Your task to perform on an android device: Go to wifi settings Image 0: 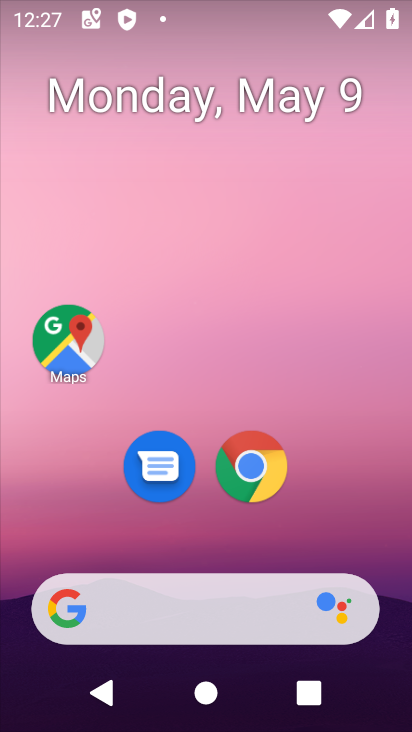
Step 0: drag from (330, 543) to (342, 148)
Your task to perform on an android device: Go to wifi settings Image 1: 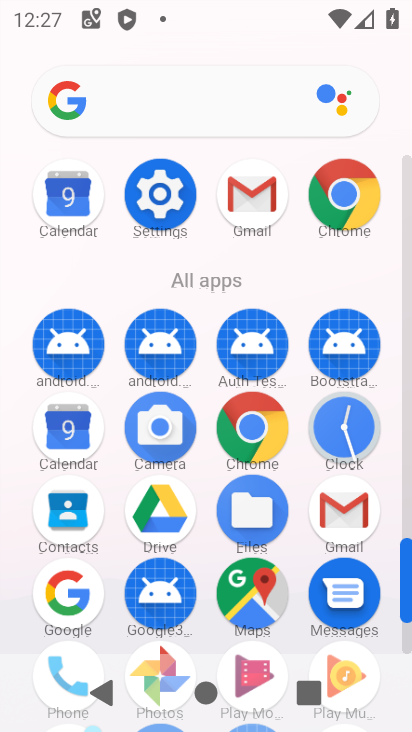
Step 1: click (152, 207)
Your task to perform on an android device: Go to wifi settings Image 2: 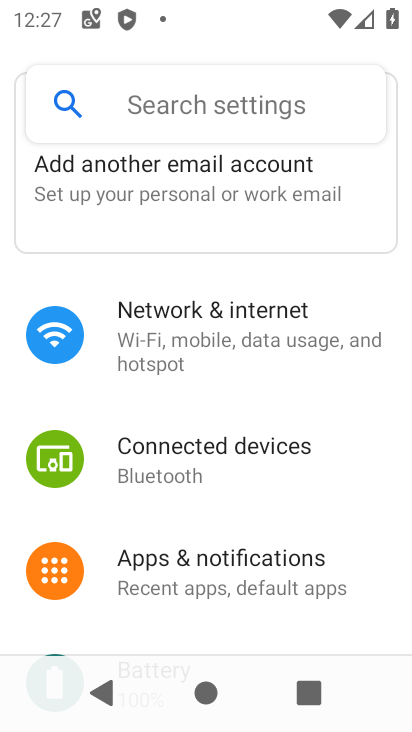
Step 2: click (219, 318)
Your task to perform on an android device: Go to wifi settings Image 3: 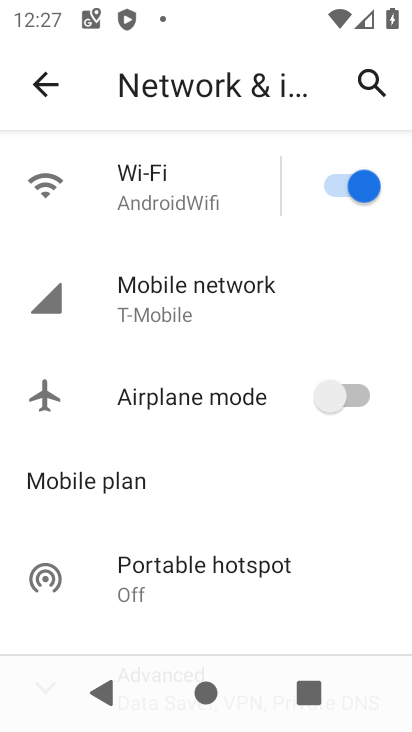
Step 3: drag from (305, 593) to (274, 138)
Your task to perform on an android device: Go to wifi settings Image 4: 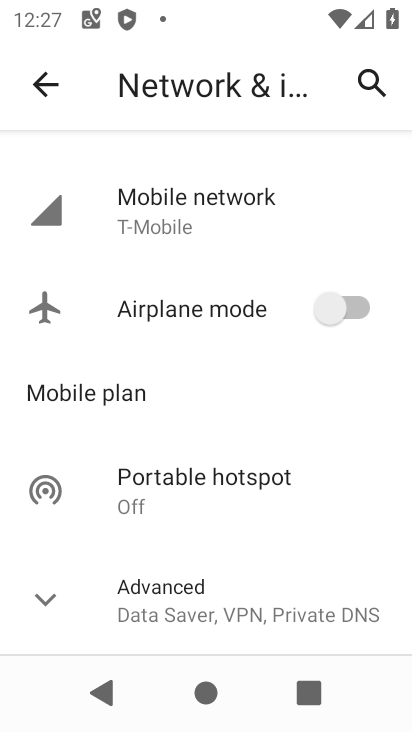
Step 4: drag from (258, 155) to (251, 463)
Your task to perform on an android device: Go to wifi settings Image 5: 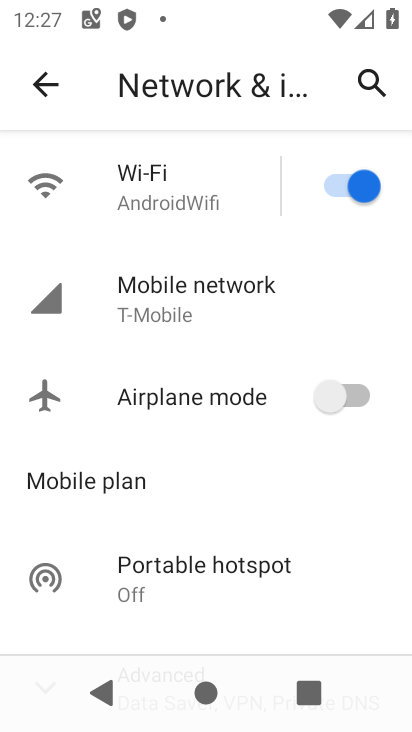
Step 5: click (115, 211)
Your task to perform on an android device: Go to wifi settings Image 6: 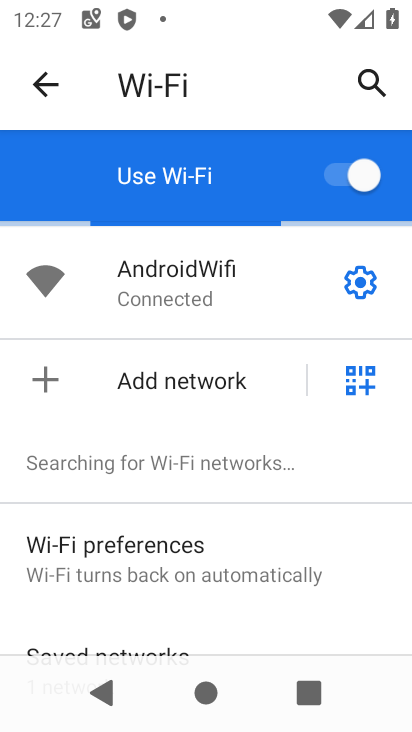
Step 6: task complete